Your task to perform on an android device: Go to calendar. Show me events next week Image 0: 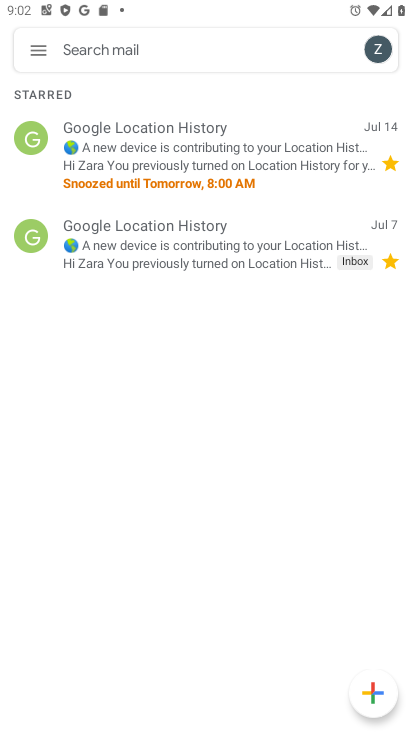
Step 0: press home button
Your task to perform on an android device: Go to calendar. Show me events next week Image 1: 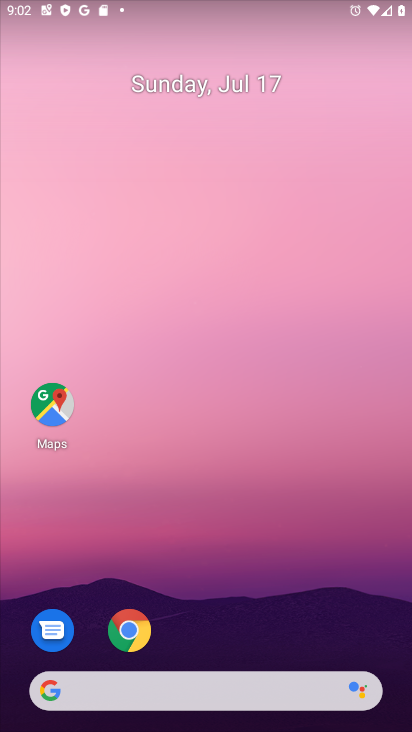
Step 1: drag from (200, 583) to (200, 225)
Your task to perform on an android device: Go to calendar. Show me events next week Image 2: 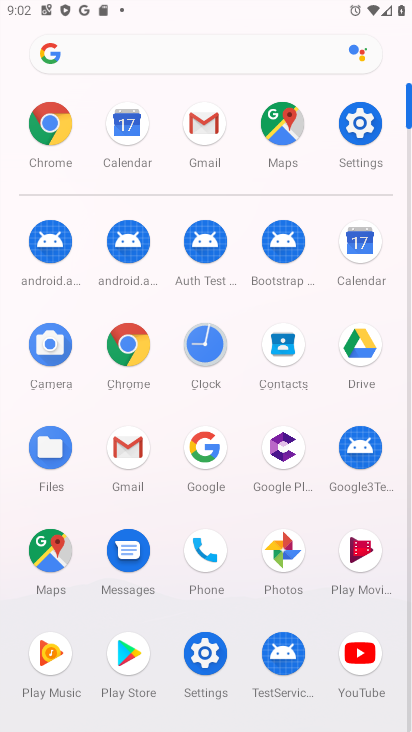
Step 2: click (366, 279)
Your task to perform on an android device: Go to calendar. Show me events next week Image 3: 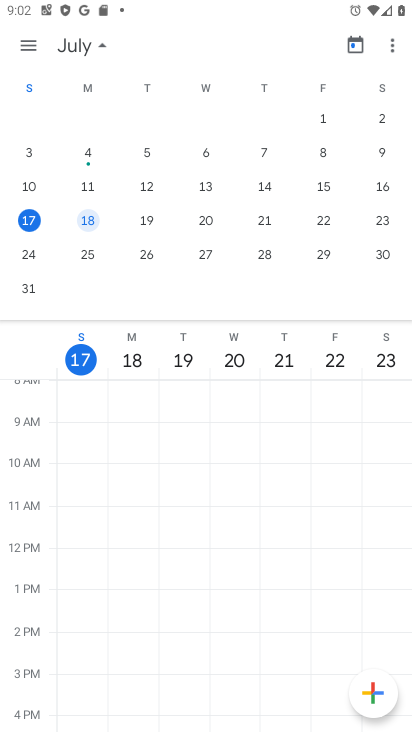
Step 3: click (33, 259)
Your task to perform on an android device: Go to calendar. Show me events next week Image 4: 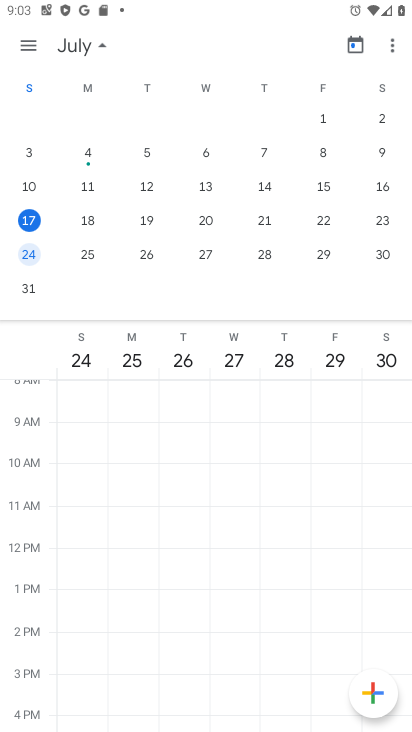
Step 4: task complete